Your task to perform on an android device: toggle translation in the chrome app Image 0: 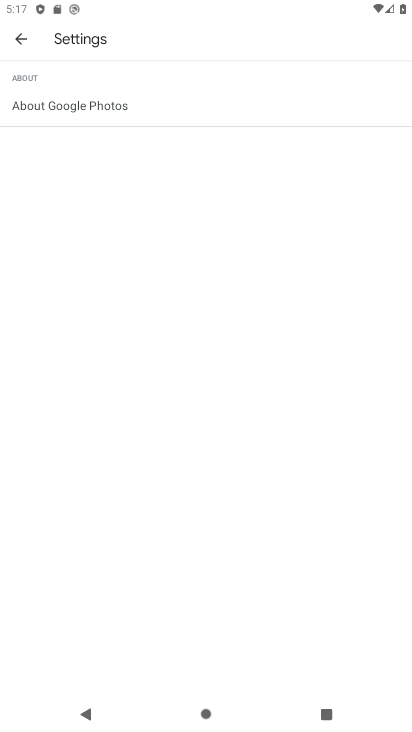
Step 0: press home button
Your task to perform on an android device: toggle translation in the chrome app Image 1: 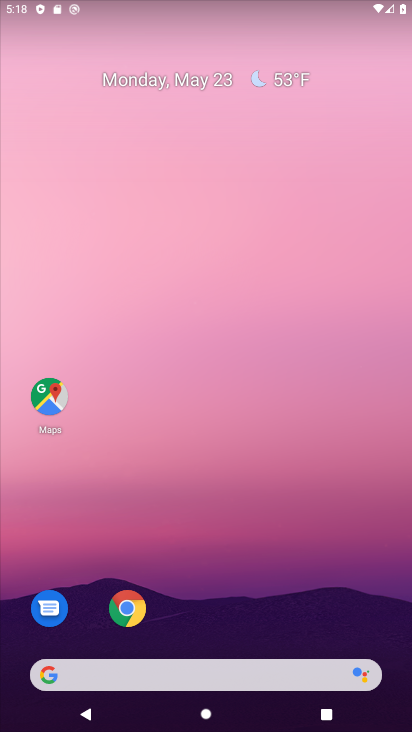
Step 1: click (123, 618)
Your task to perform on an android device: toggle translation in the chrome app Image 2: 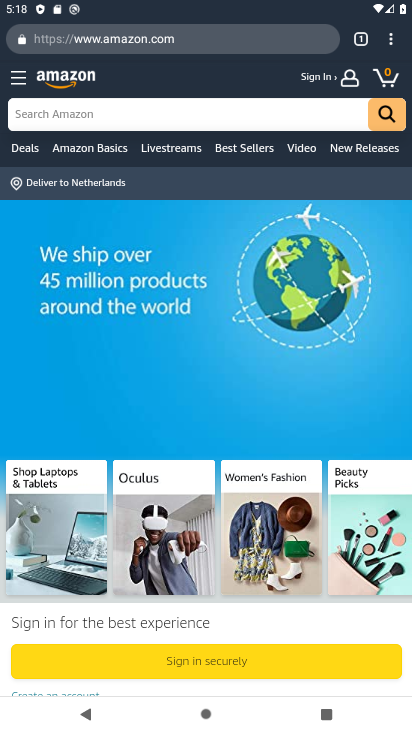
Step 2: click (391, 34)
Your task to perform on an android device: toggle translation in the chrome app Image 3: 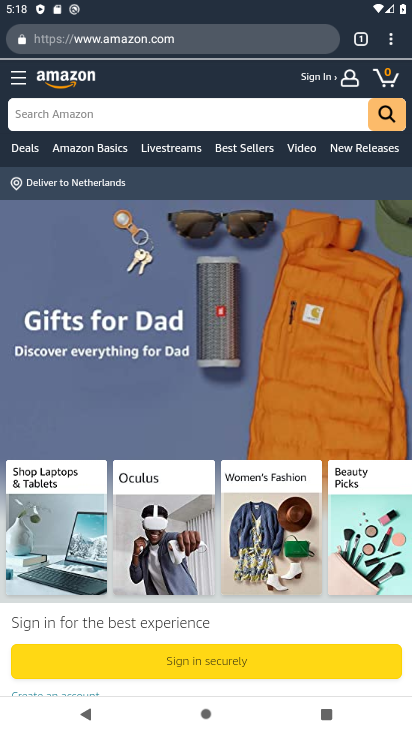
Step 3: click (395, 44)
Your task to perform on an android device: toggle translation in the chrome app Image 4: 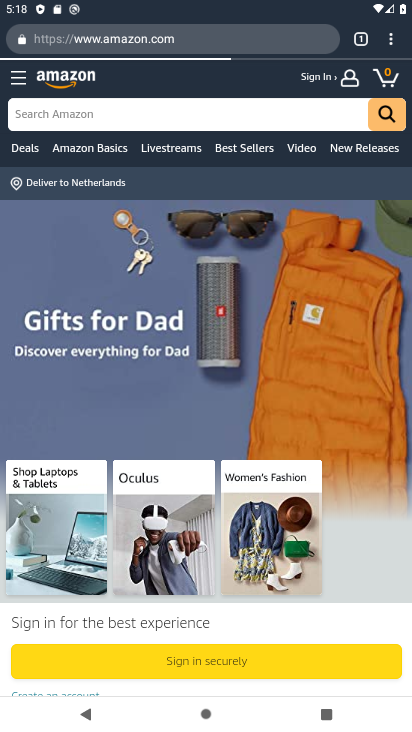
Step 4: click (386, 47)
Your task to perform on an android device: toggle translation in the chrome app Image 5: 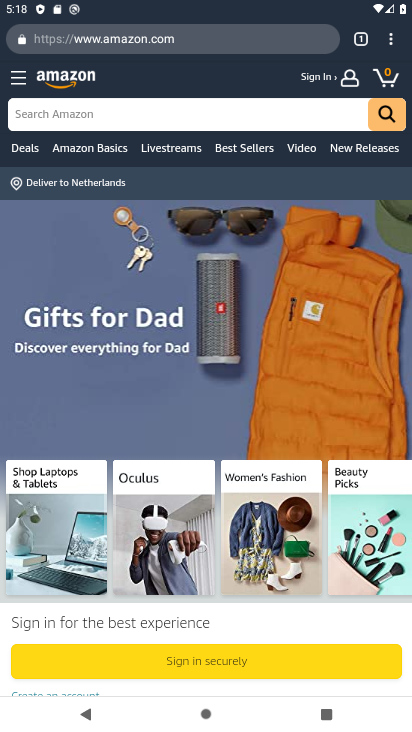
Step 5: click (385, 47)
Your task to perform on an android device: toggle translation in the chrome app Image 6: 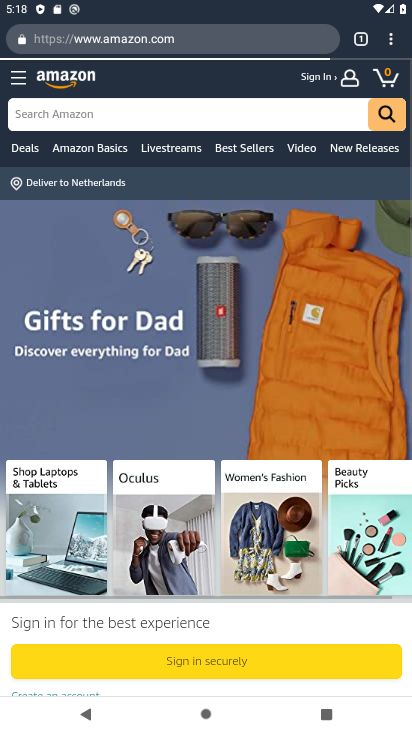
Step 6: click (385, 47)
Your task to perform on an android device: toggle translation in the chrome app Image 7: 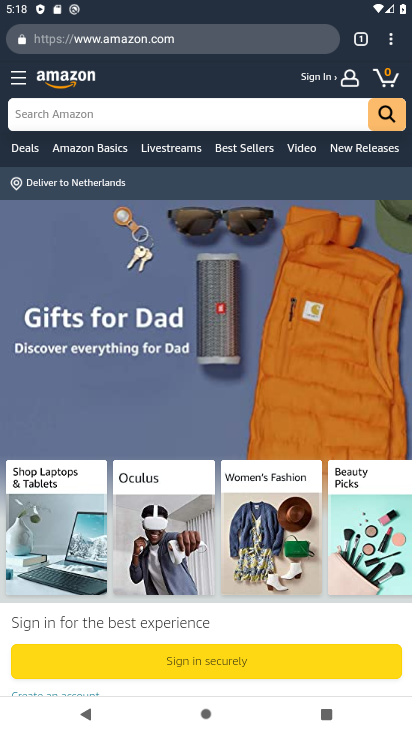
Step 7: click (387, 40)
Your task to perform on an android device: toggle translation in the chrome app Image 8: 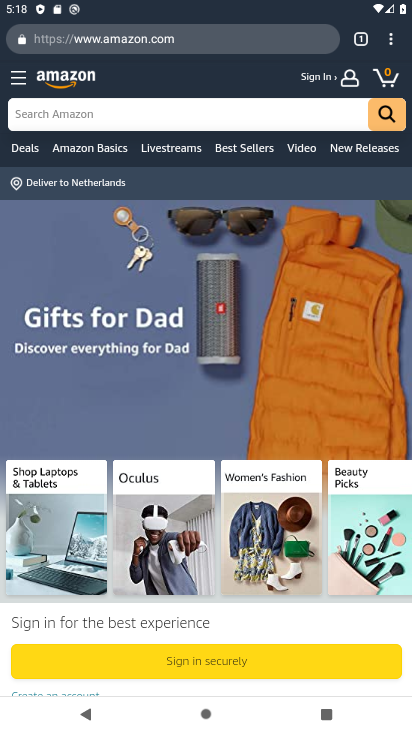
Step 8: click (388, 41)
Your task to perform on an android device: toggle translation in the chrome app Image 9: 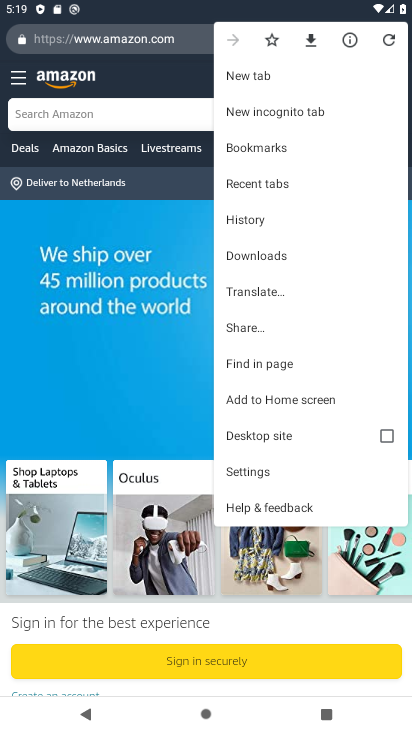
Step 9: click (276, 460)
Your task to perform on an android device: toggle translation in the chrome app Image 10: 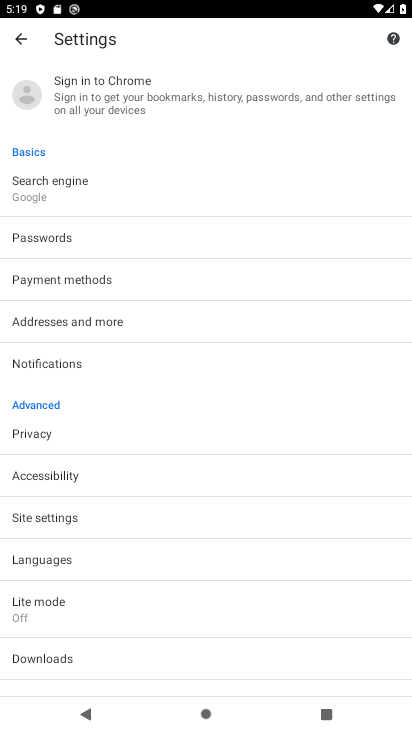
Step 10: click (61, 556)
Your task to perform on an android device: toggle translation in the chrome app Image 11: 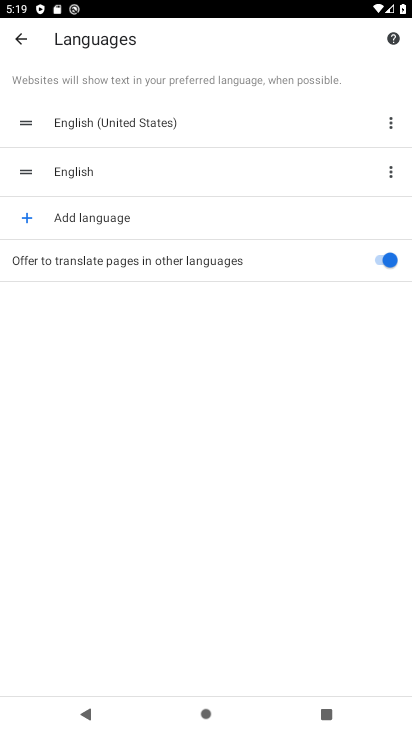
Step 11: click (388, 260)
Your task to perform on an android device: toggle translation in the chrome app Image 12: 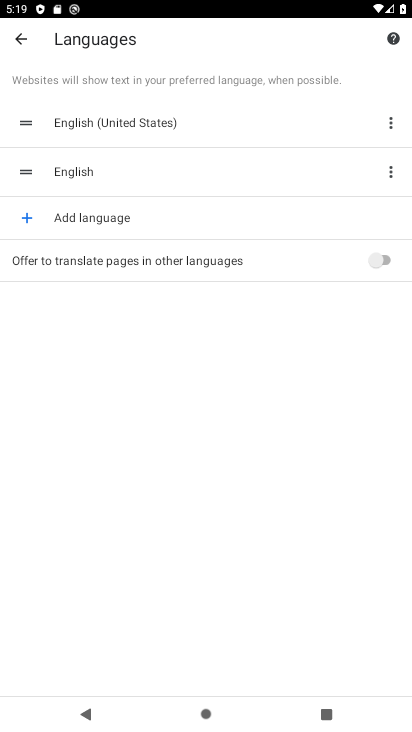
Step 12: task complete